Your task to perform on an android device: uninstall "WhatsApp Messenger" Image 0: 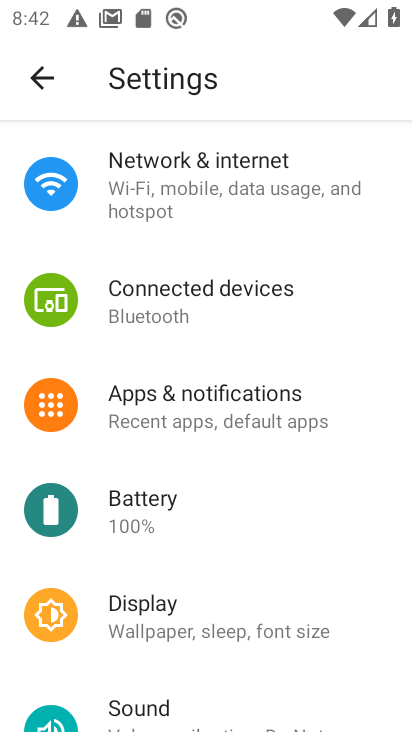
Step 0: press home button
Your task to perform on an android device: uninstall "WhatsApp Messenger" Image 1: 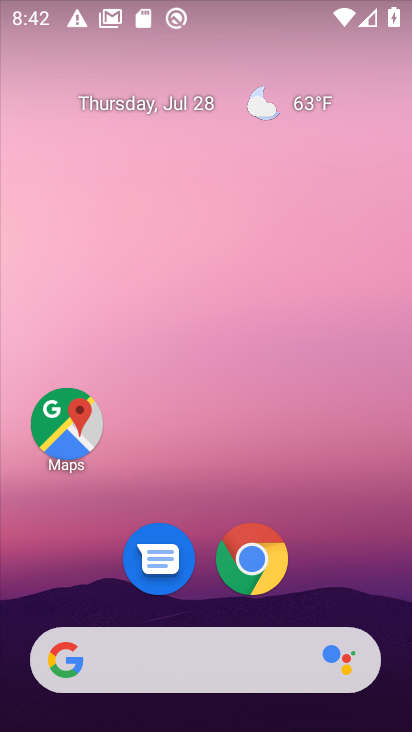
Step 1: drag from (317, 486) to (303, 19)
Your task to perform on an android device: uninstall "WhatsApp Messenger" Image 2: 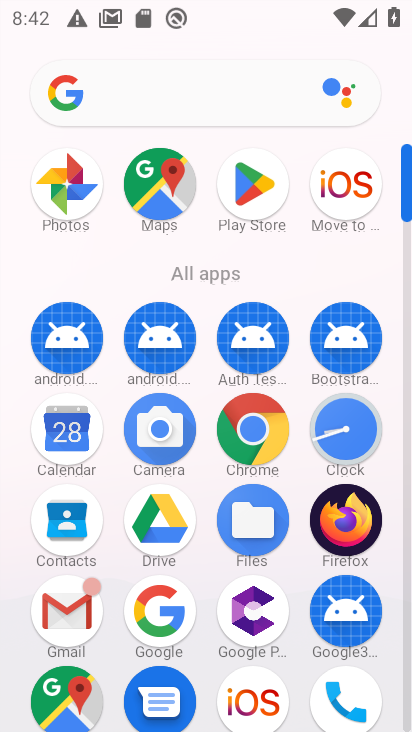
Step 2: drag from (382, 547) to (373, 419)
Your task to perform on an android device: uninstall "WhatsApp Messenger" Image 3: 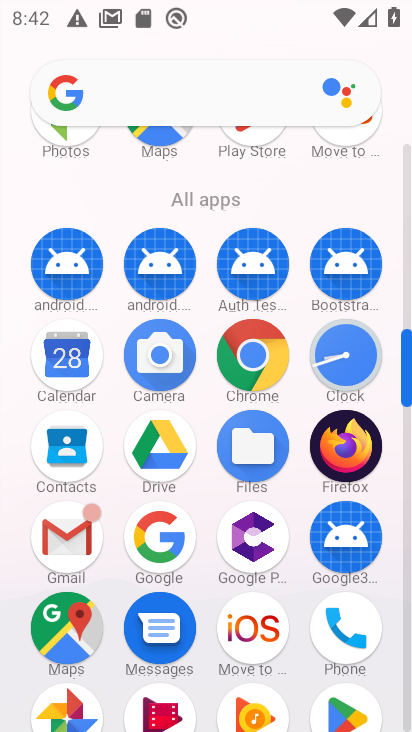
Step 3: drag from (391, 630) to (398, 470)
Your task to perform on an android device: uninstall "WhatsApp Messenger" Image 4: 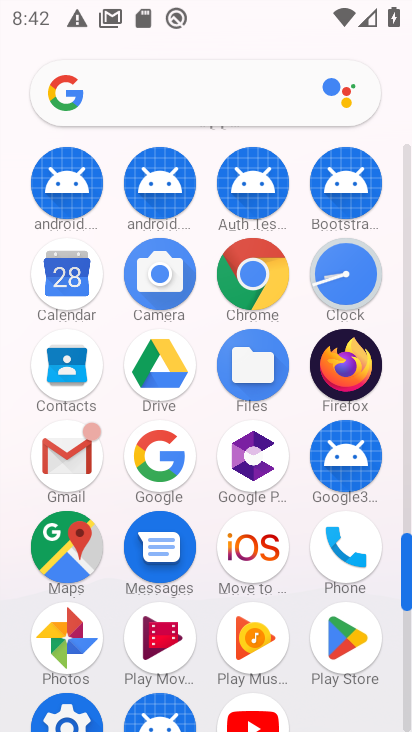
Step 4: click (339, 634)
Your task to perform on an android device: uninstall "WhatsApp Messenger" Image 5: 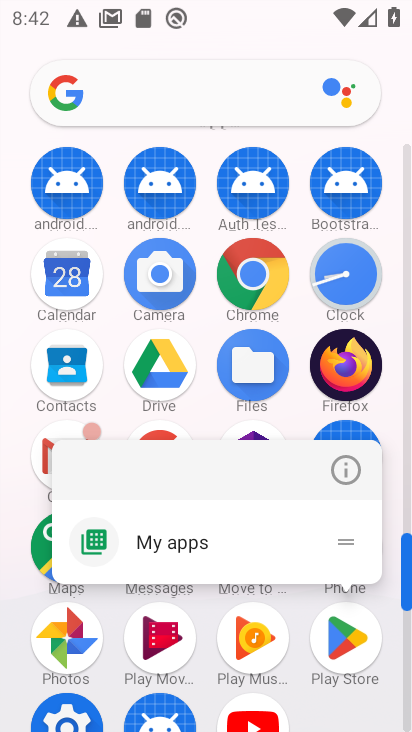
Step 5: click (339, 639)
Your task to perform on an android device: uninstall "WhatsApp Messenger" Image 6: 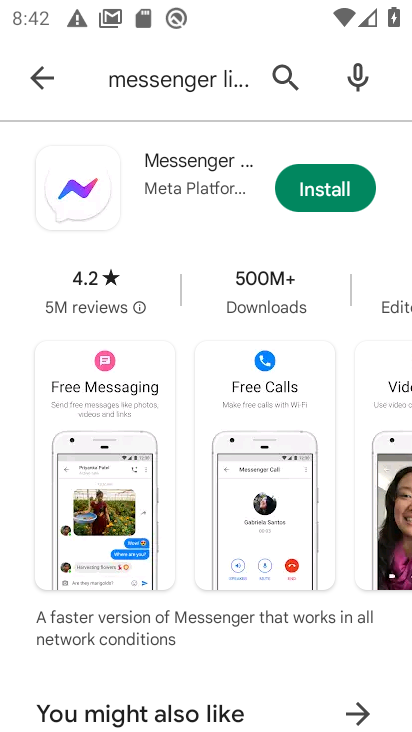
Step 6: click (276, 77)
Your task to perform on an android device: uninstall "WhatsApp Messenger" Image 7: 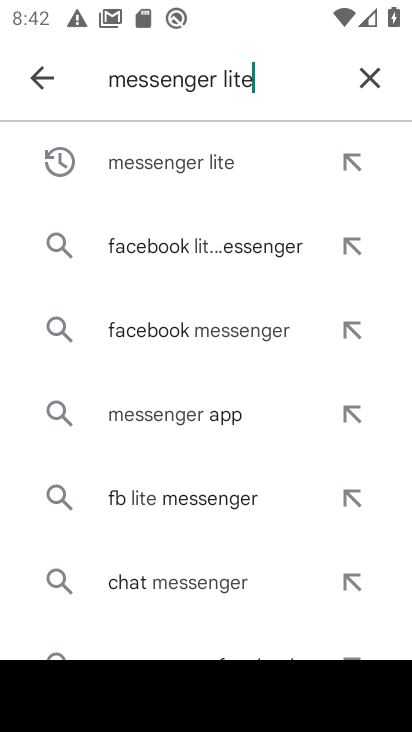
Step 7: click (363, 81)
Your task to perform on an android device: uninstall "WhatsApp Messenger" Image 8: 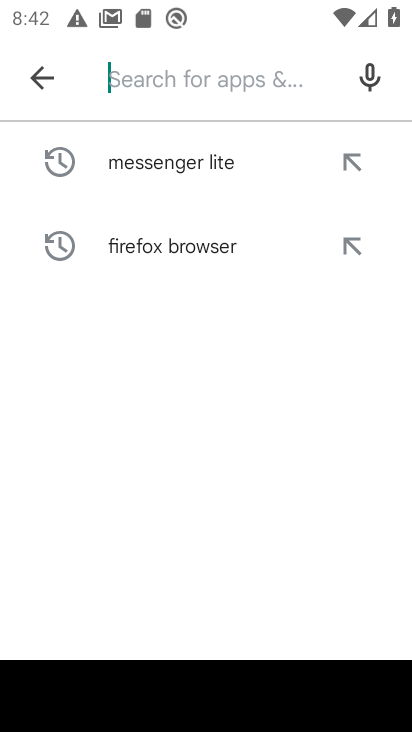
Step 8: type "WhatsApp Messenger"
Your task to perform on an android device: uninstall "WhatsApp Messenger" Image 9: 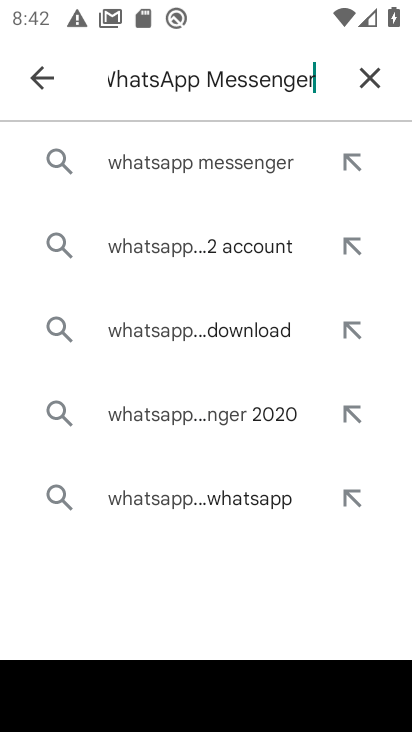
Step 9: click (208, 167)
Your task to perform on an android device: uninstall "WhatsApp Messenger" Image 10: 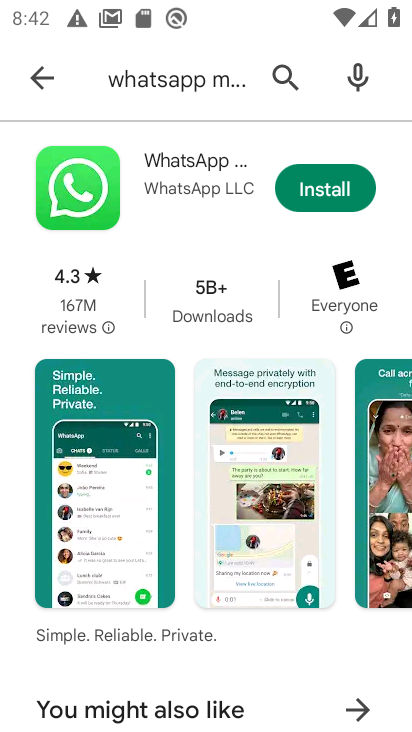
Step 10: task complete